Your task to perform on an android device: make emails show in primary in the gmail app Image 0: 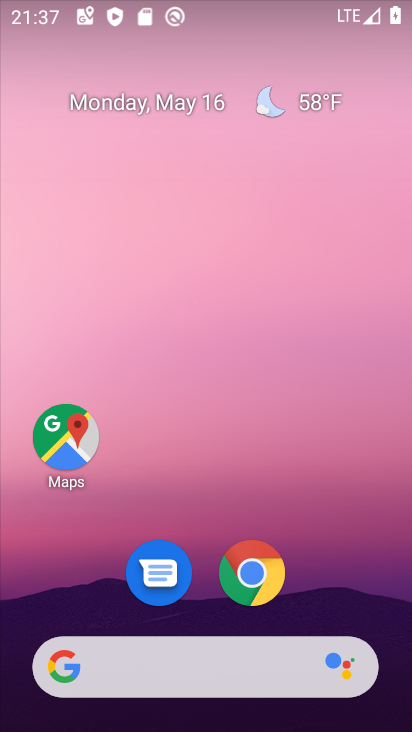
Step 0: drag from (215, 721) to (215, 176)
Your task to perform on an android device: make emails show in primary in the gmail app Image 1: 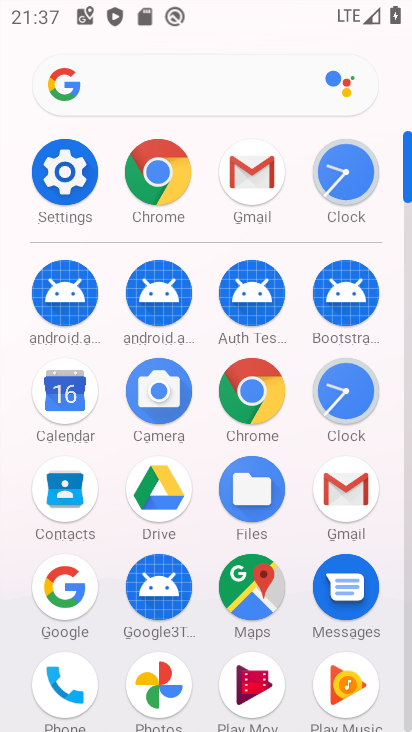
Step 1: click (367, 499)
Your task to perform on an android device: make emails show in primary in the gmail app Image 2: 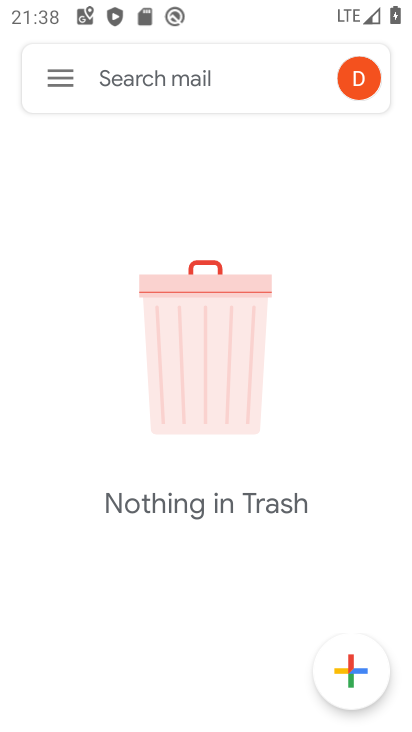
Step 2: click (49, 77)
Your task to perform on an android device: make emails show in primary in the gmail app Image 3: 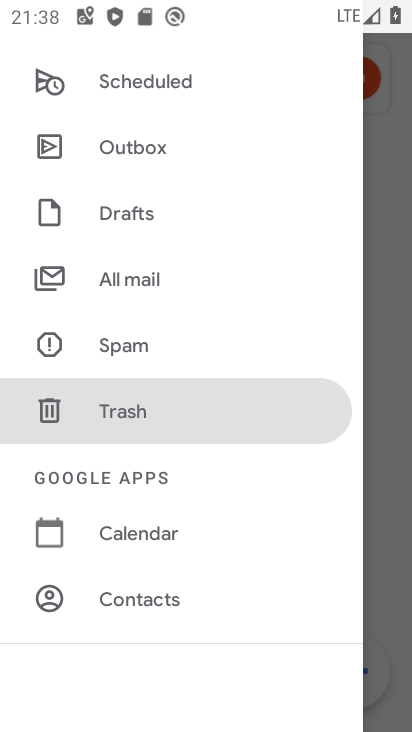
Step 3: drag from (132, 591) to (138, 102)
Your task to perform on an android device: make emails show in primary in the gmail app Image 4: 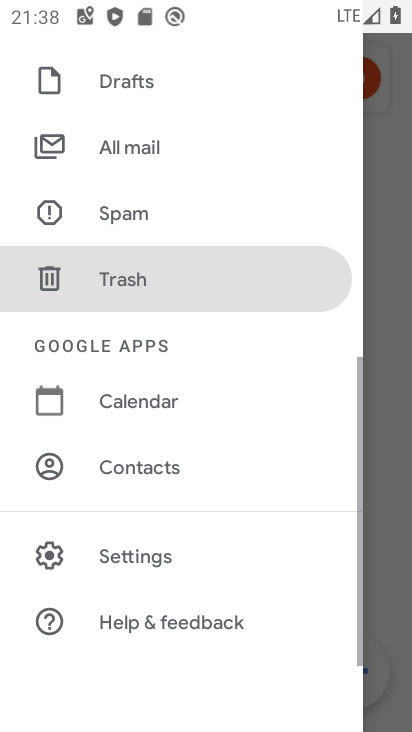
Step 4: click (137, 549)
Your task to perform on an android device: make emails show in primary in the gmail app Image 5: 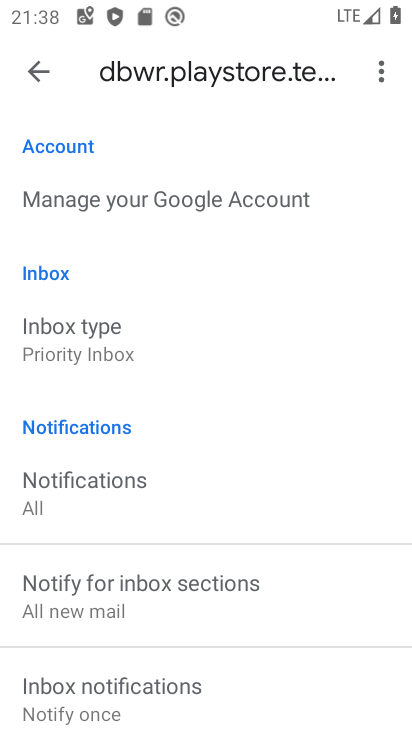
Step 5: click (178, 637)
Your task to perform on an android device: make emails show in primary in the gmail app Image 6: 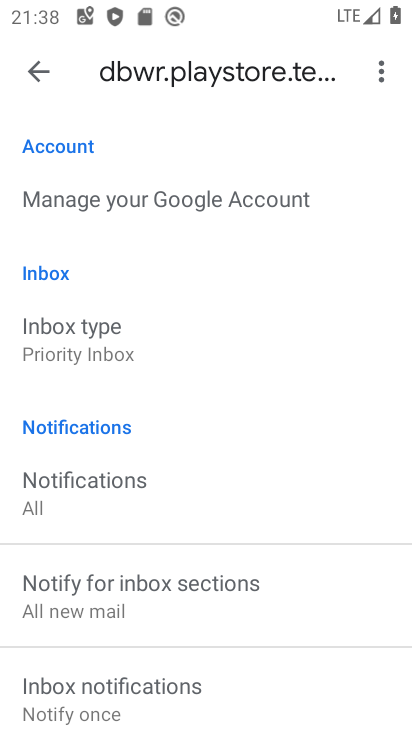
Step 6: drag from (262, 247) to (240, 561)
Your task to perform on an android device: make emails show in primary in the gmail app Image 7: 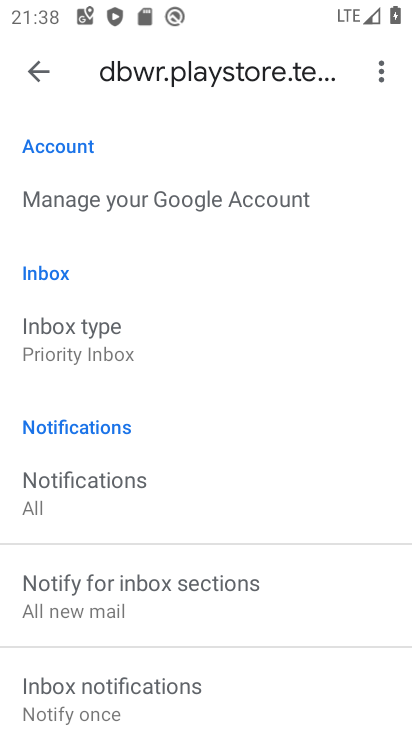
Step 7: click (68, 327)
Your task to perform on an android device: make emails show in primary in the gmail app Image 8: 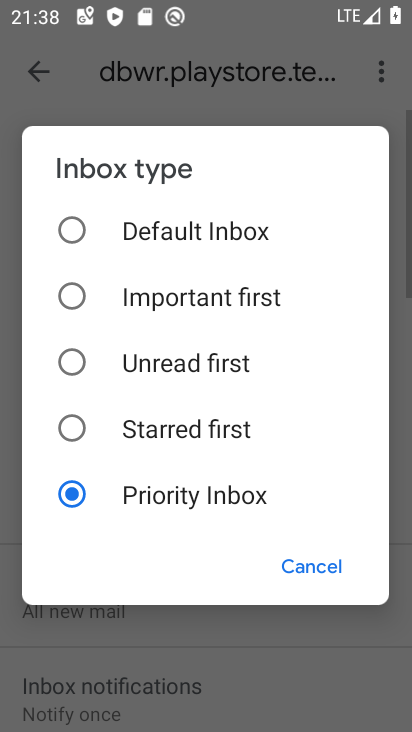
Step 8: click (70, 233)
Your task to perform on an android device: make emails show in primary in the gmail app Image 9: 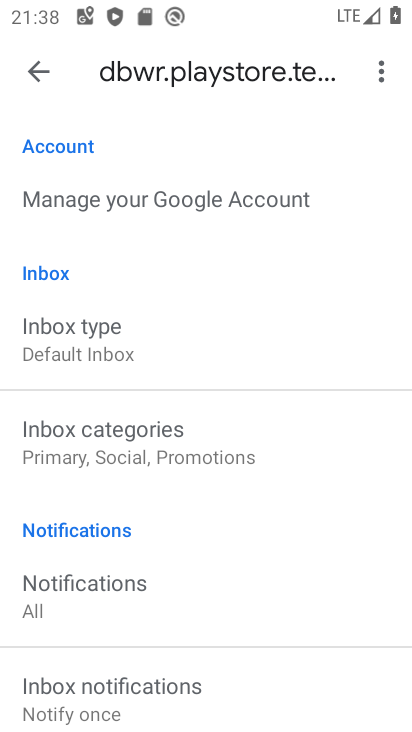
Step 9: click (105, 447)
Your task to perform on an android device: make emails show in primary in the gmail app Image 10: 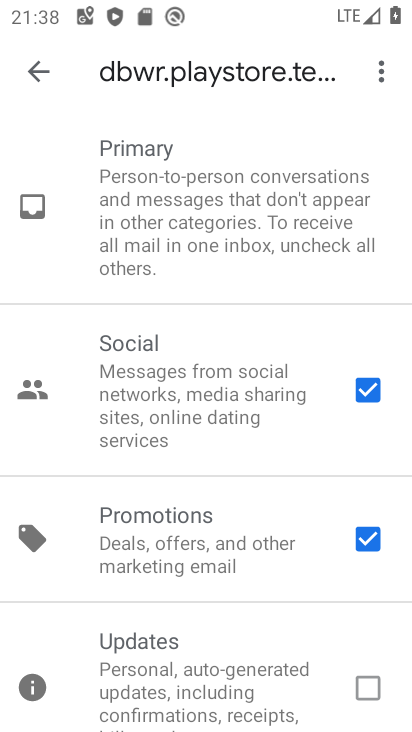
Step 10: click (355, 538)
Your task to perform on an android device: make emails show in primary in the gmail app Image 11: 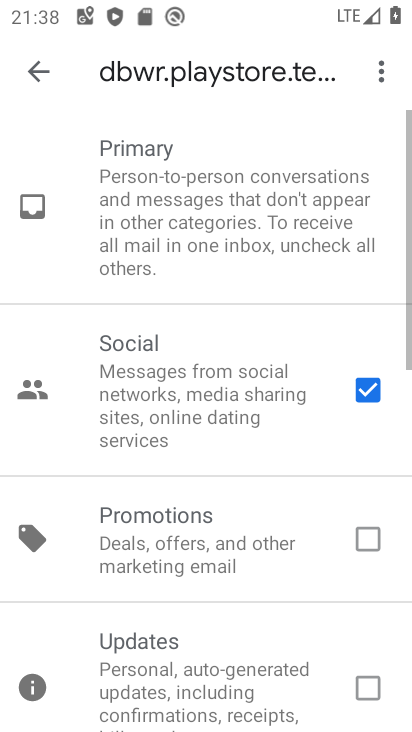
Step 11: click (366, 398)
Your task to perform on an android device: make emails show in primary in the gmail app Image 12: 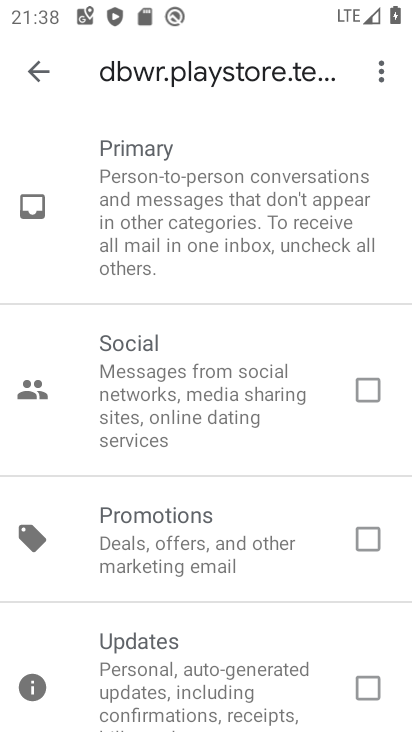
Step 12: drag from (225, 639) to (226, 226)
Your task to perform on an android device: make emails show in primary in the gmail app Image 13: 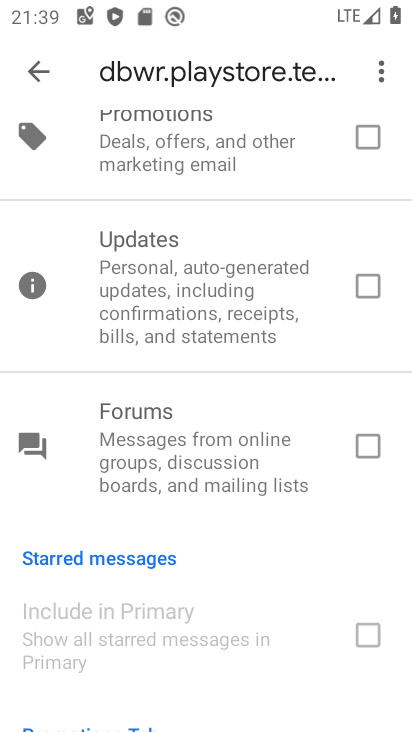
Step 13: click (37, 68)
Your task to perform on an android device: make emails show in primary in the gmail app Image 14: 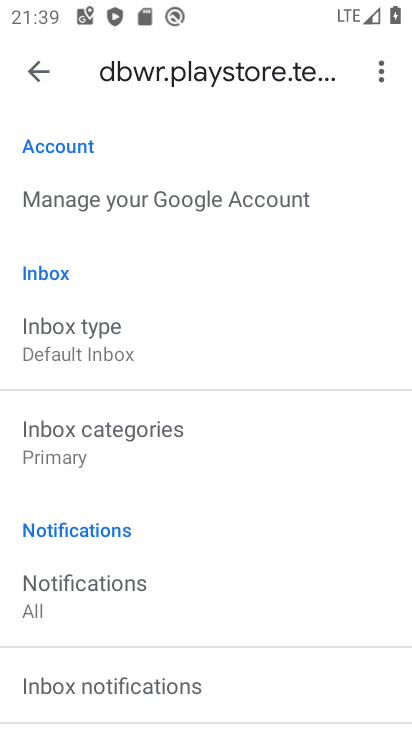
Step 14: task complete